Your task to perform on an android device: Open settings on Google Maps Image 0: 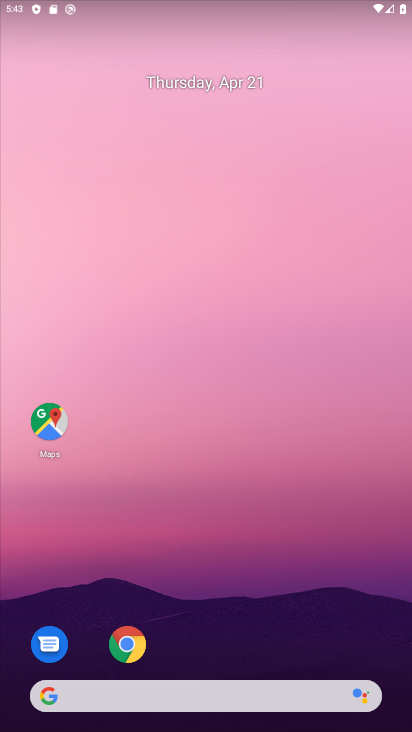
Step 0: drag from (261, 599) to (393, 3)
Your task to perform on an android device: Open settings on Google Maps Image 1: 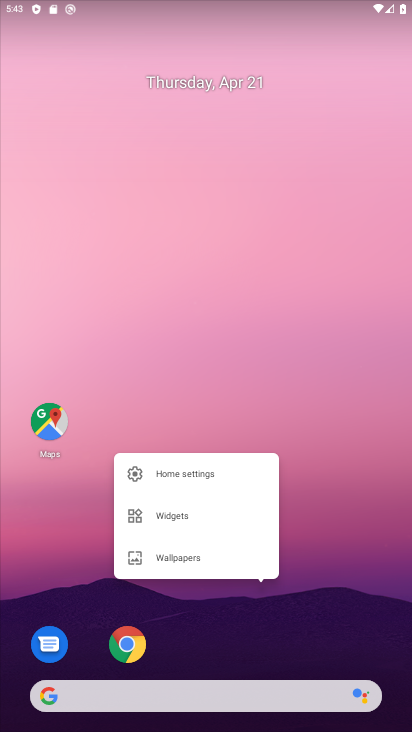
Step 1: drag from (351, 635) to (385, 82)
Your task to perform on an android device: Open settings on Google Maps Image 2: 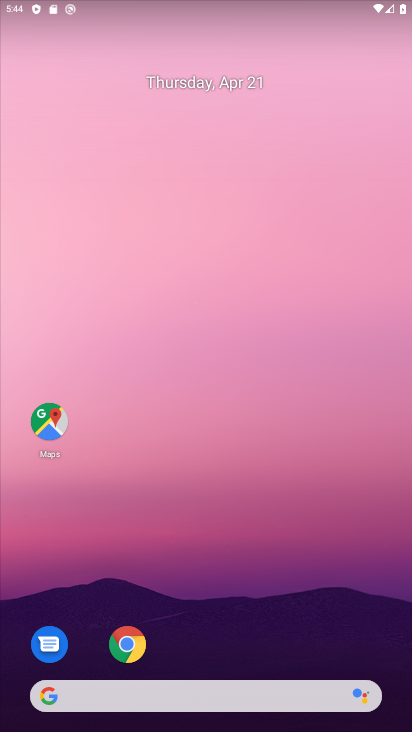
Step 2: drag from (262, 635) to (69, 9)
Your task to perform on an android device: Open settings on Google Maps Image 3: 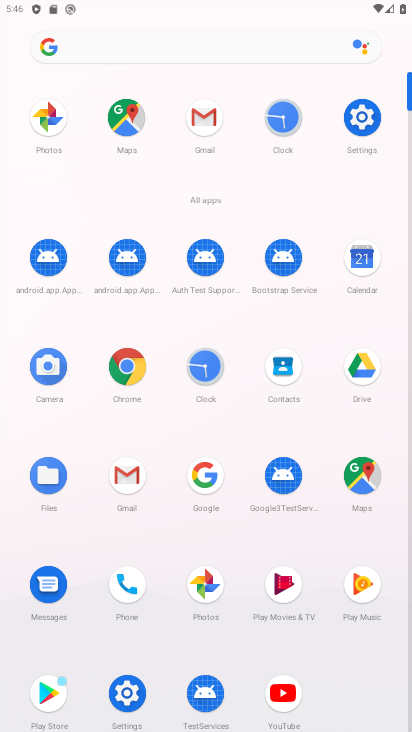
Step 3: click (125, 104)
Your task to perform on an android device: Open settings on Google Maps Image 4: 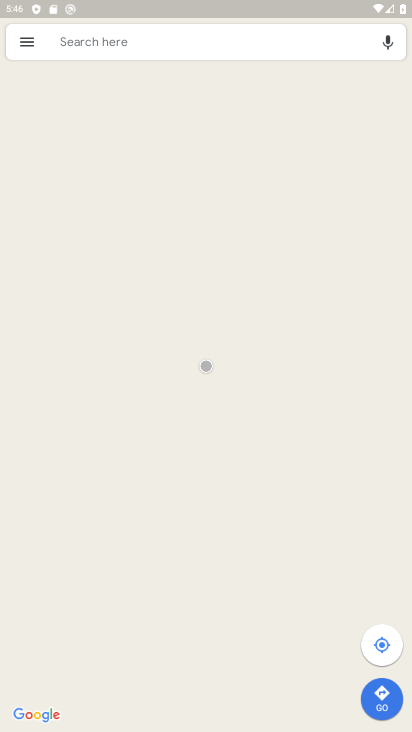
Step 4: click (30, 45)
Your task to perform on an android device: Open settings on Google Maps Image 5: 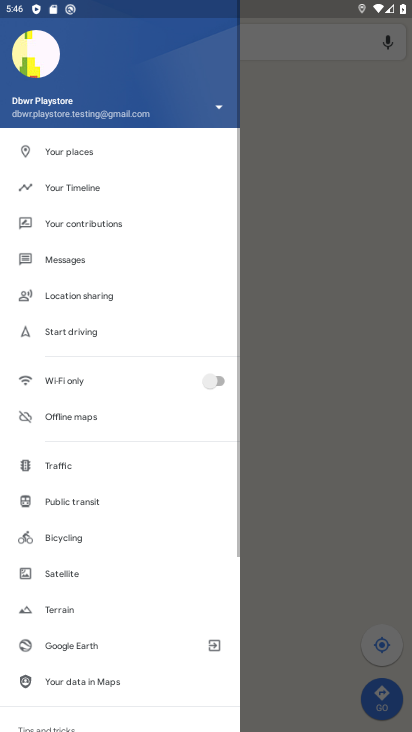
Step 5: click (42, 191)
Your task to perform on an android device: Open settings on Google Maps Image 6: 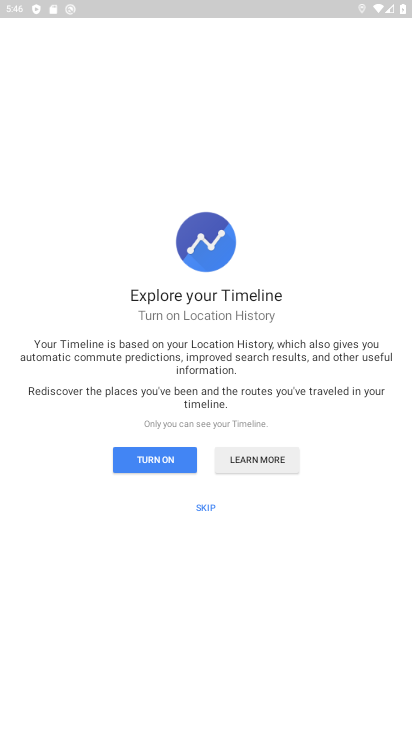
Step 6: click (207, 514)
Your task to perform on an android device: Open settings on Google Maps Image 7: 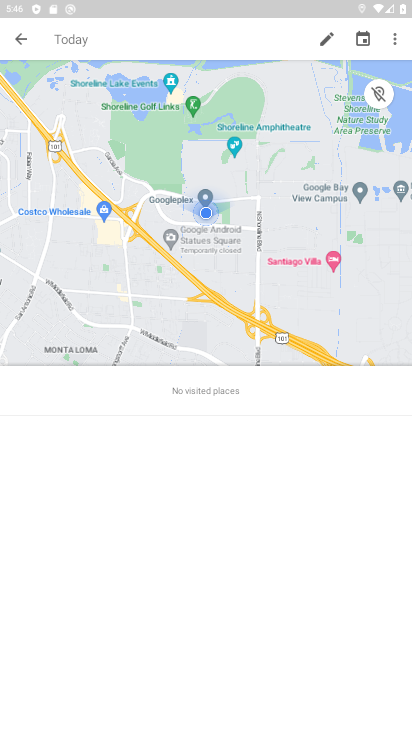
Step 7: click (399, 36)
Your task to perform on an android device: Open settings on Google Maps Image 8: 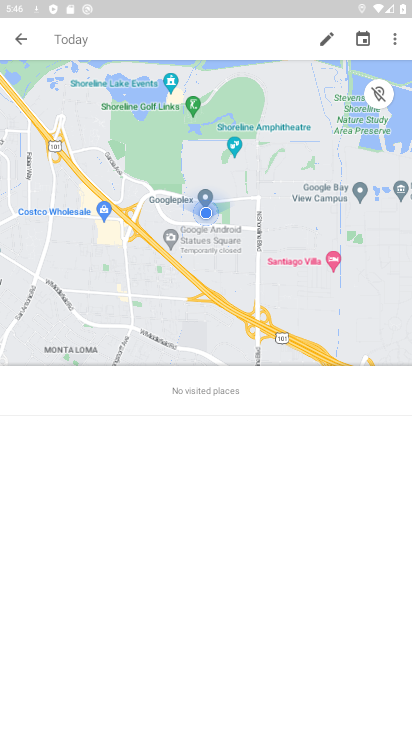
Step 8: click (395, 28)
Your task to perform on an android device: Open settings on Google Maps Image 9: 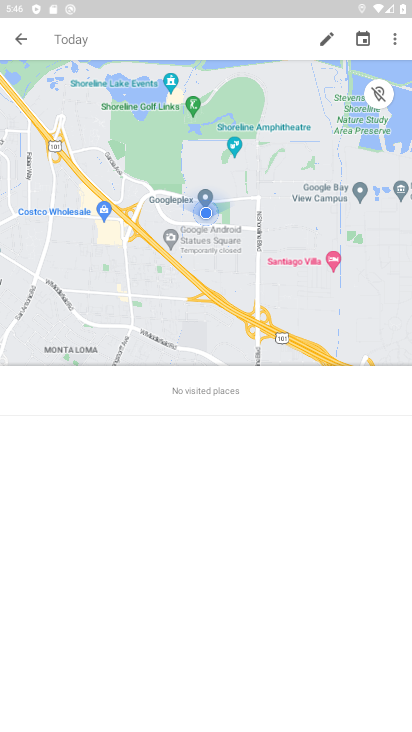
Step 9: click (392, 40)
Your task to perform on an android device: Open settings on Google Maps Image 10: 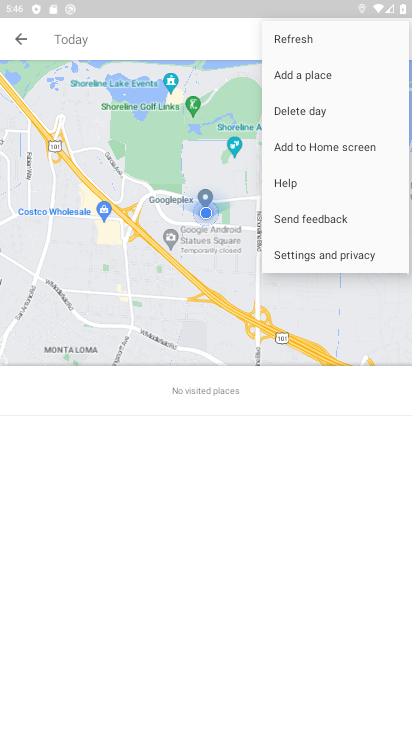
Step 10: click (327, 247)
Your task to perform on an android device: Open settings on Google Maps Image 11: 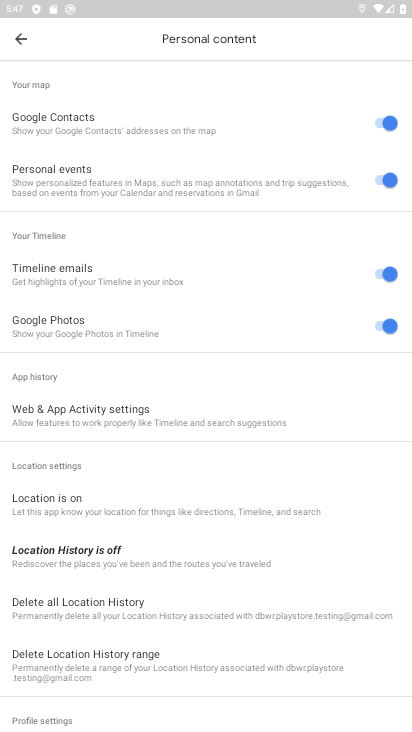
Step 11: task complete